Your task to perform on an android device: toggle pop-ups in chrome Image 0: 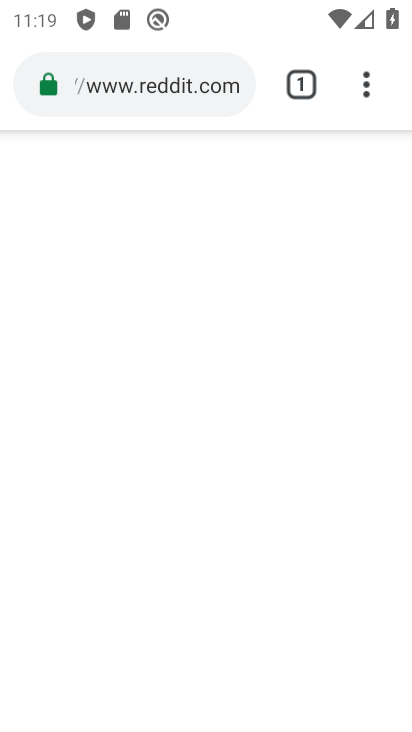
Step 0: press home button
Your task to perform on an android device: toggle pop-ups in chrome Image 1: 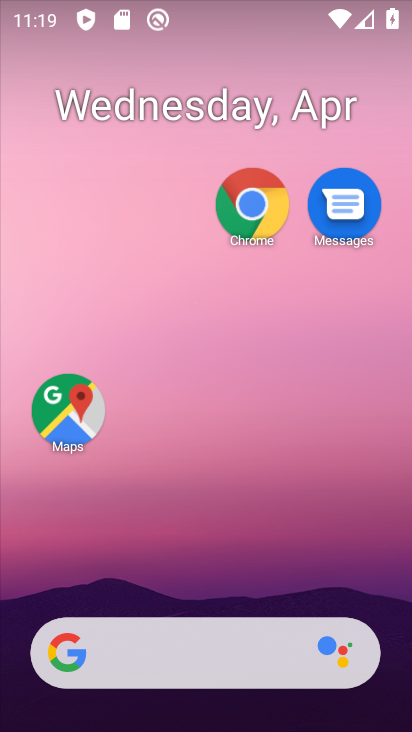
Step 1: click (265, 207)
Your task to perform on an android device: toggle pop-ups in chrome Image 2: 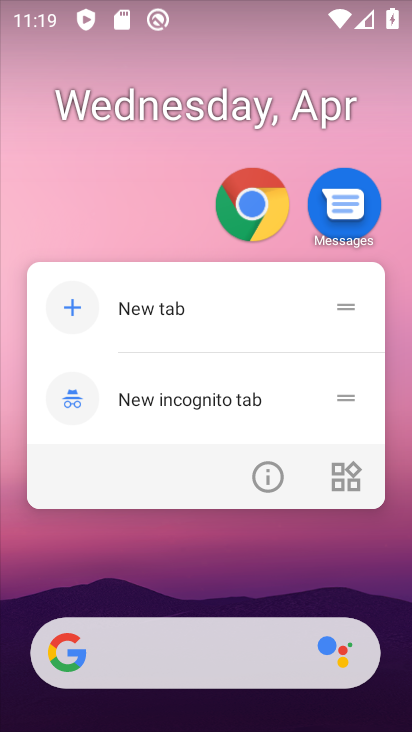
Step 2: click (258, 206)
Your task to perform on an android device: toggle pop-ups in chrome Image 3: 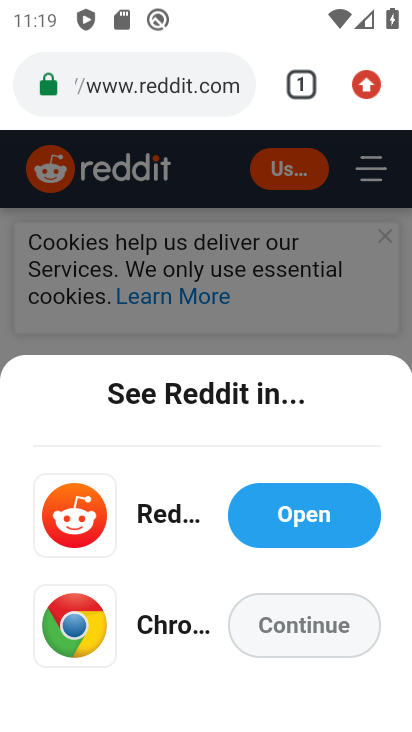
Step 3: click (281, 634)
Your task to perform on an android device: toggle pop-ups in chrome Image 4: 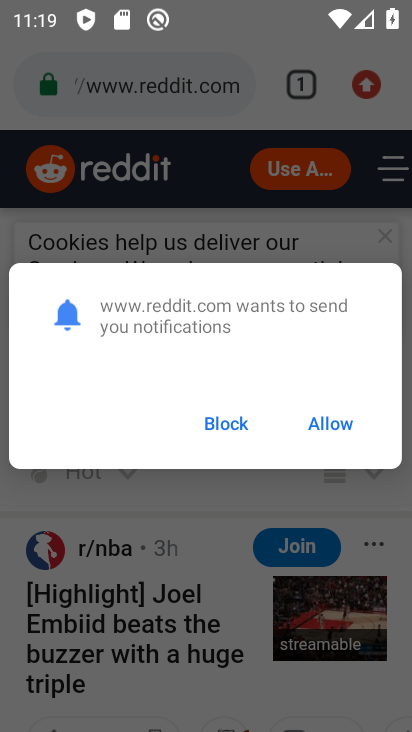
Step 4: click (338, 429)
Your task to perform on an android device: toggle pop-ups in chrome Image 5: 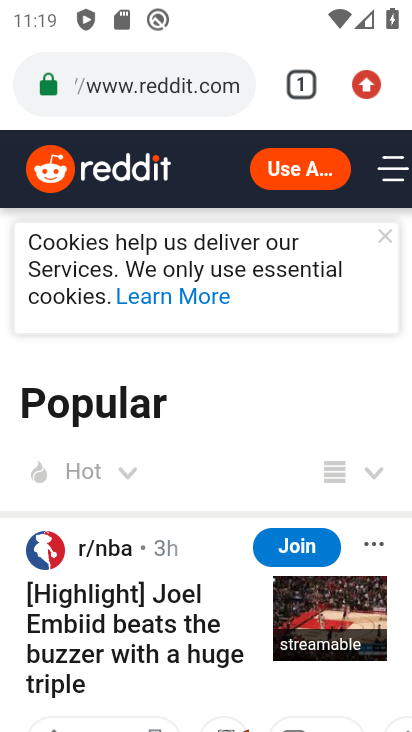
Step 5: drag from (359, 84) to (183, 594)
Your task to perform on an android device: toggle pop-ups in chrome Image 6: 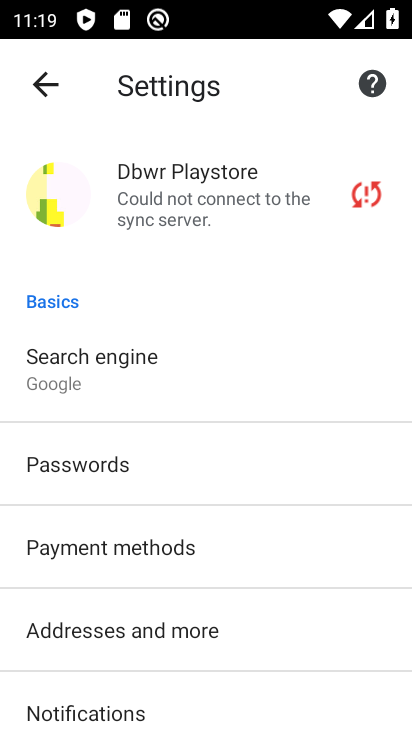
Step 6: drag from (168, 569) to (168, 77)
Your task to perform on an android device: toggle pop-ups in chrome Image 7: 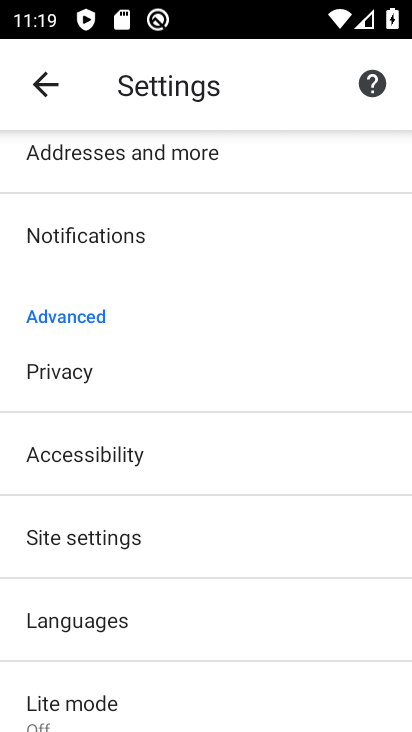
Step 7: click (117, 525)
Your task to perform on an android device: toggle pop-ups in chrome Image 8: 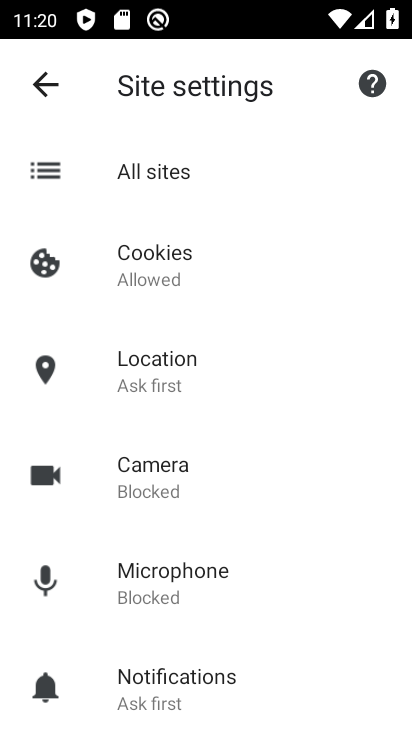
Step 8: drag from (196, 569) to (158, 176)
Your task to perform on an android device: toggle pop-ups in chrome Image 9: 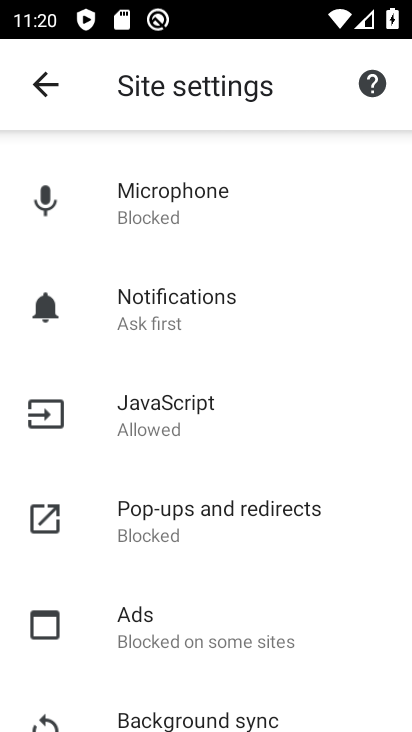
Step 9: drag from (165, 546) to (126, 200)
Your task to perform on an android device: toggle pop-ups in chrome Image 10: 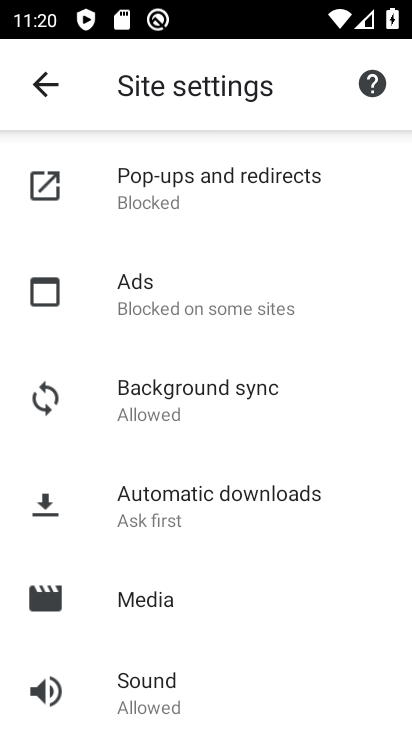
Step 10: drag from (165, 620) to (138, 486)
Your task to perform on an android device: toggle pop-ups in chrome Image 11: 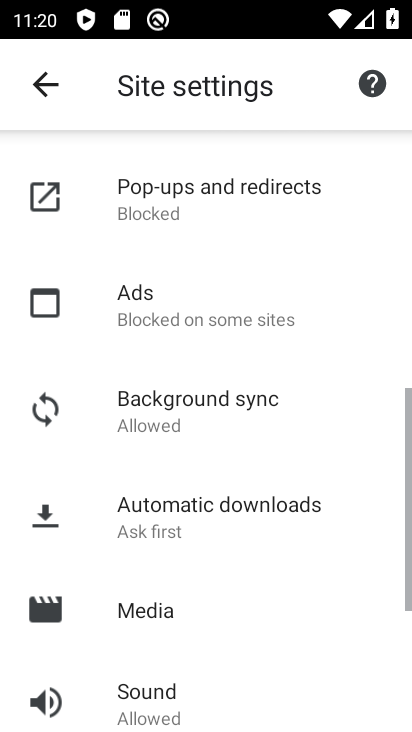
Step 11: click (140, 214)
Your task to perform on an android device: toggle pop-ups in chrome Image 12: 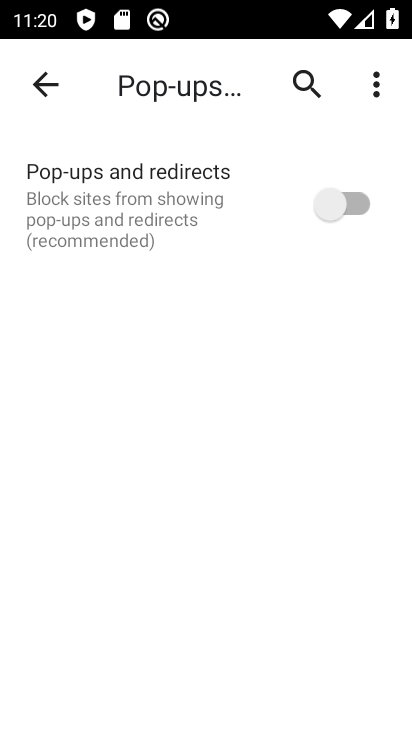
Step 12: click (332, 198)
Your task to perform on an android device: toggle pop-ups in chrome Image 13: 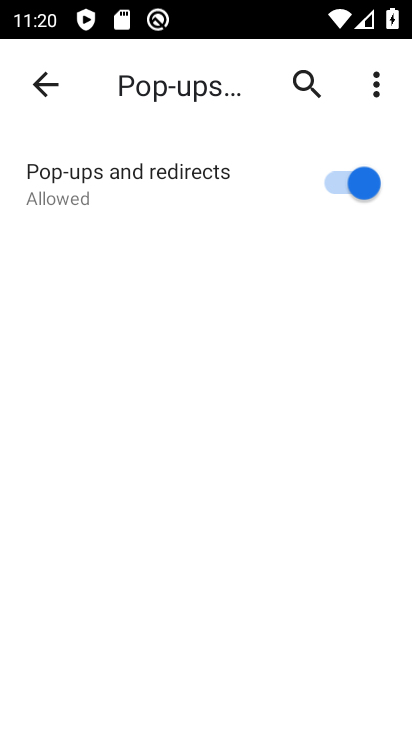
Step 13: task complete